Your task to perform on an android device: turn on location history Image 0: 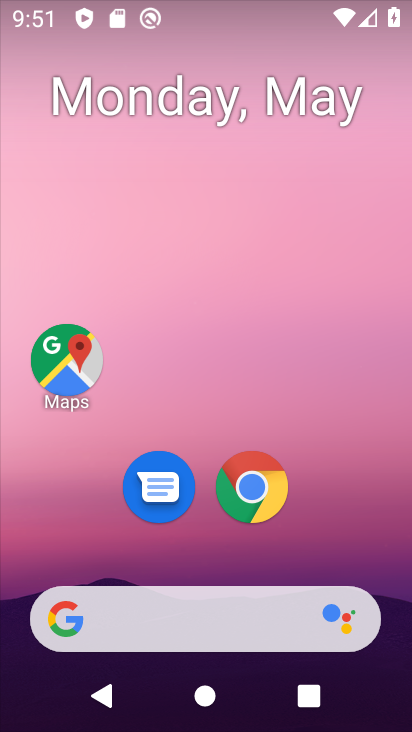
Step 0: drag from (206, 566) to (200, 8)
Your task to perform on an android device: turn on location history Image 1: 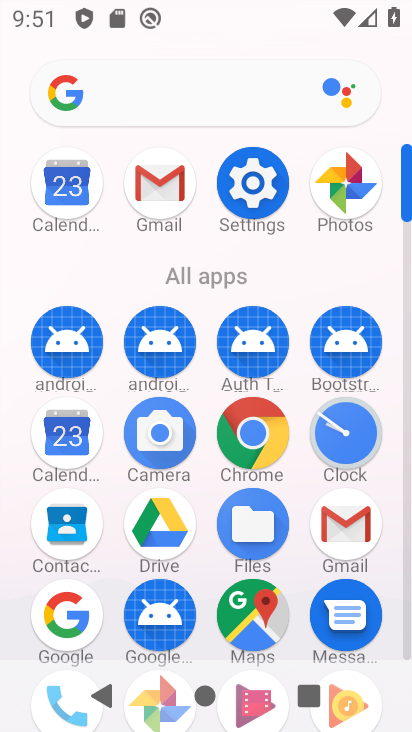
Step 1: click (254, 198)
Your task to perform on an android device: turn on location history Image 2: 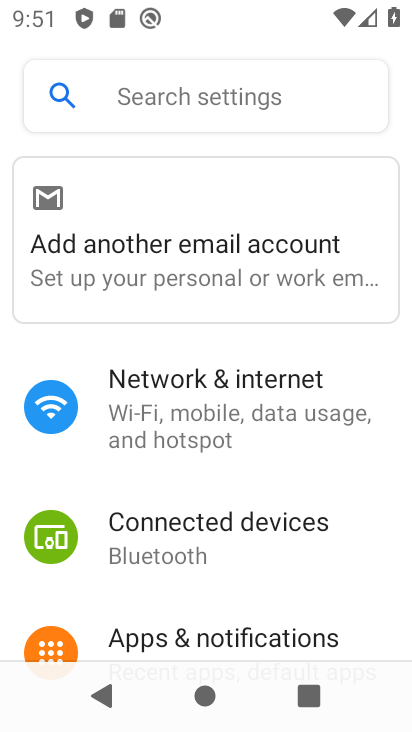
Step 2: drag from (211, 582) to (212, 117)
Your task to perform on an android device: turn on location history Image 3: 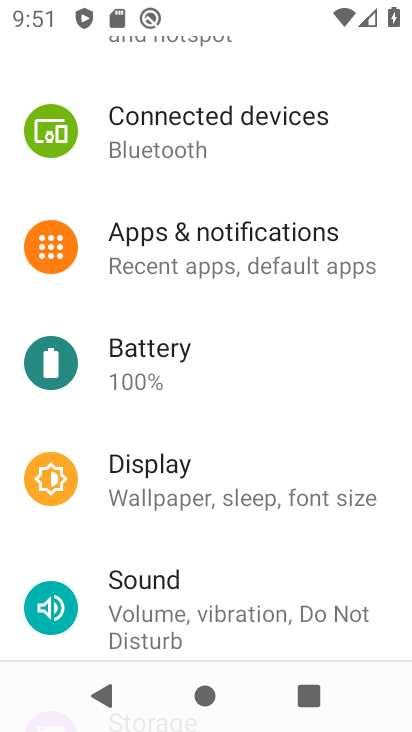
Step 3: drag from (181, 541) to (189, 122)
Your task to perform on an android device: turn on location history Image 4: 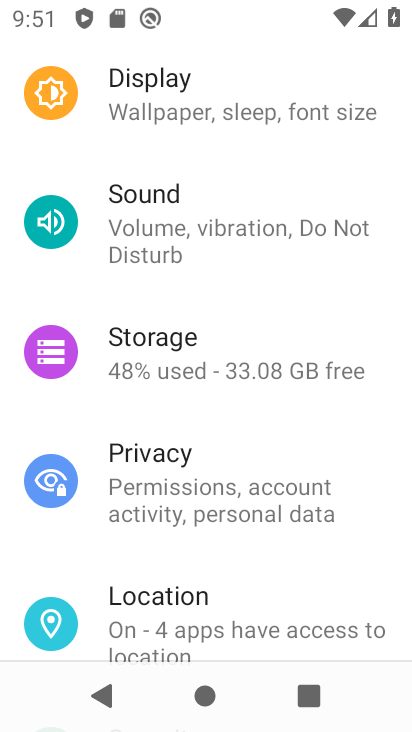
Step 4: click (168, 603)
Your task to perform on an android device: turn on location history Image 5: 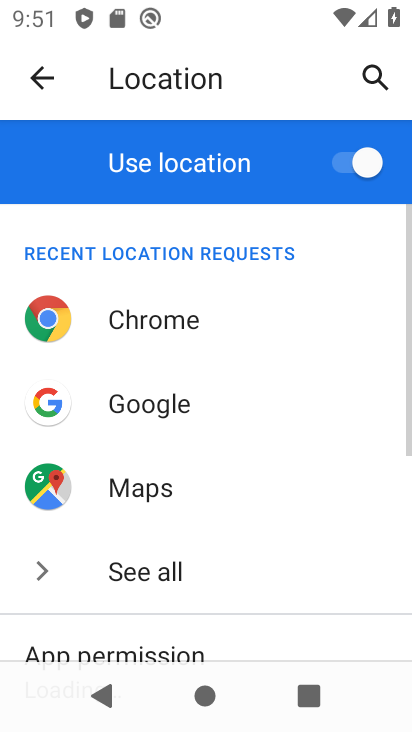
Step 5: drag from (181, 645) to (211, 222)
Your task to perform on an android device: turn on location history Image 6: 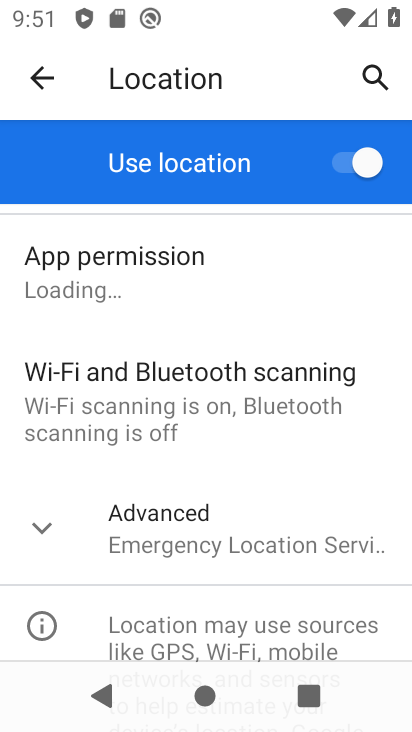
Step 6: click (172, 538)
Your task to perform on an android device: turn on location history Image 7: 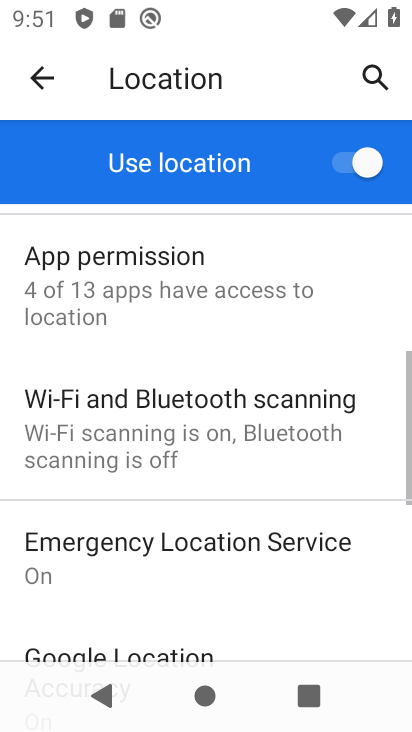
Step 7: drag from (187, 575) to (211, 263)
Your task to perform on an android device: turn on location history Image 8: 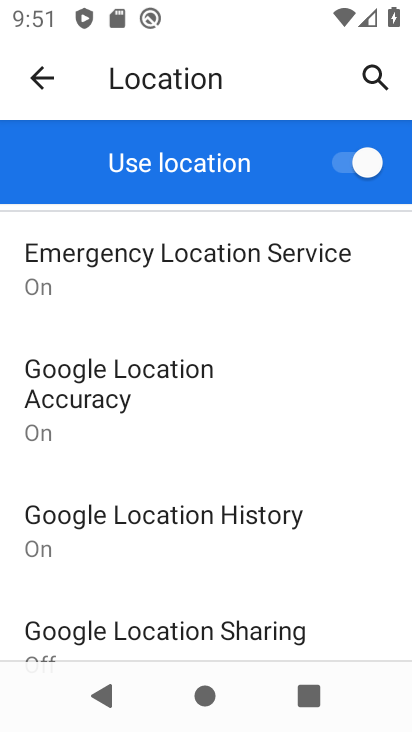
Step 8: click (200, 541)
Your task to perform on an android device: turn on location history Image 9: 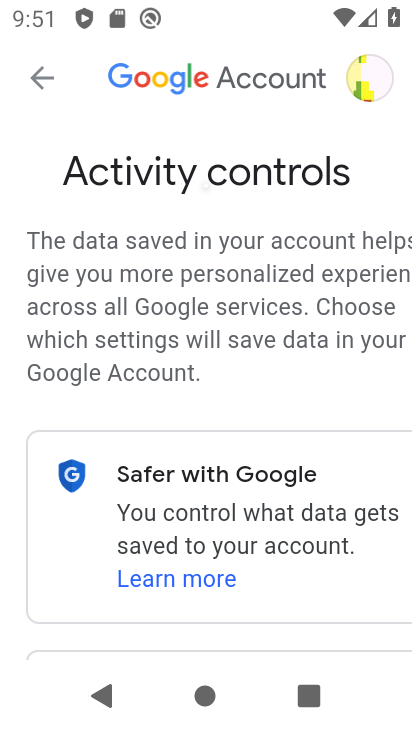
Step 9: drag from (159, 524) to (214, 0)
Your task to perform on an android device: turn on location history Image 10: 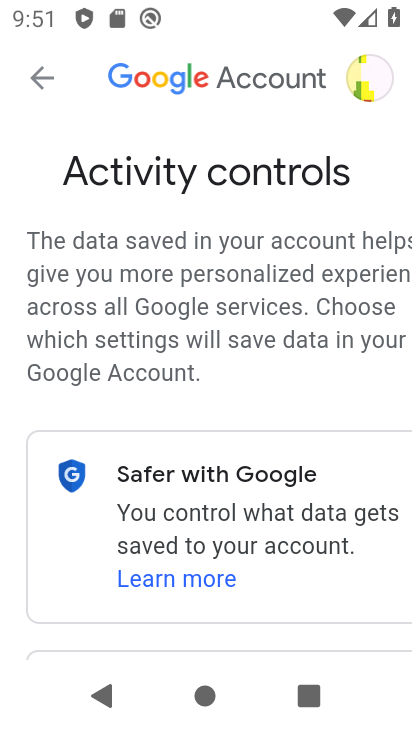
Step 10: drag from (214, 532) to (248, 61)
Your task to perform on an android device: turn on location history Image 11: 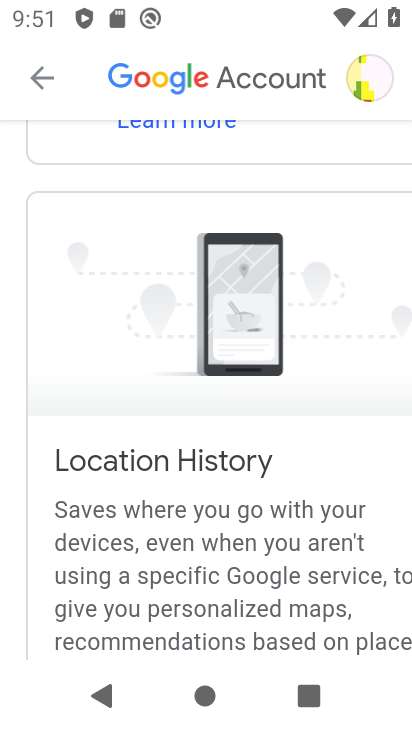
Step 11: drag from (254, 516) to (312, 38)
Your task to perform on an android device: turn on location history Image 12: 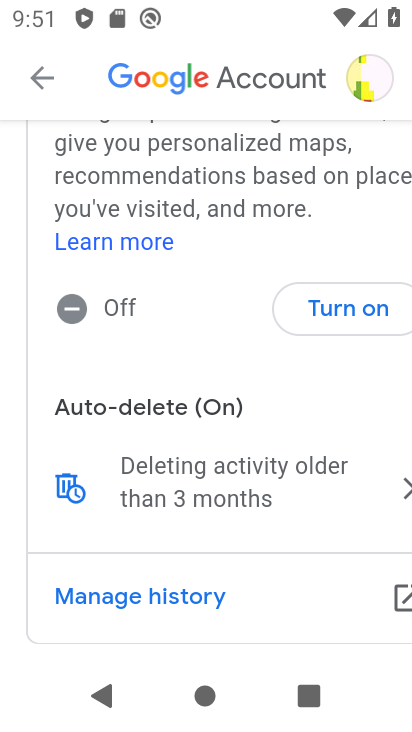
Step 12: click (338, 305)
Your task to perform on an android device: turn on location history Image 13: 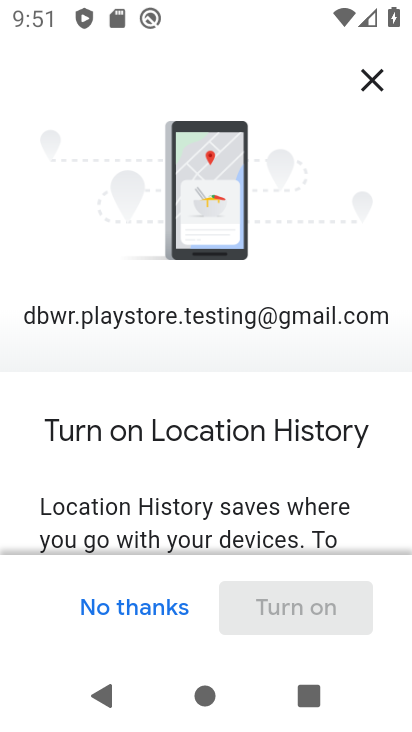
Step 13: drag from (247, 520) to (275, 117)
Your task to perform on an android device: turn on location history Image 14: 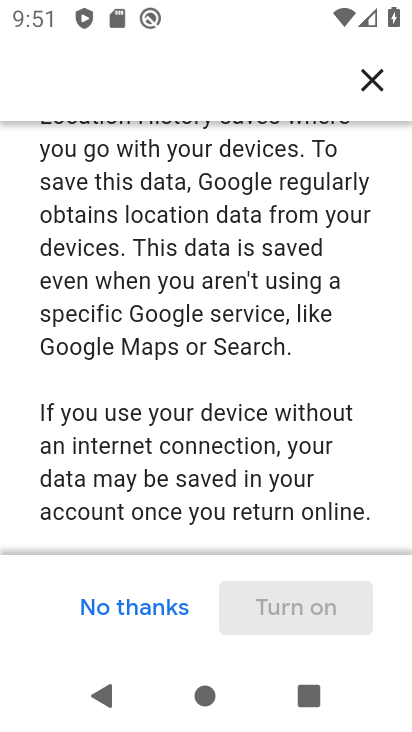
Step 14: drag from (243, 485) to (261, 78)
Your task to perform on an android device: turn on location history Image 15: 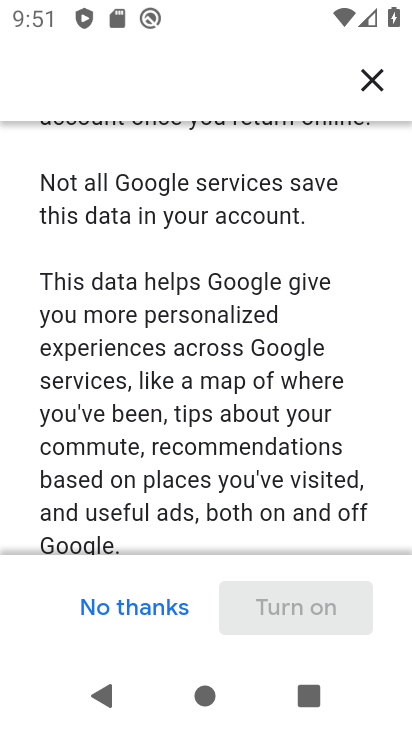
Step 15: drag from (234, 510) to (274, 29)
Your task to perform on an android device: turn on location history Image 16: 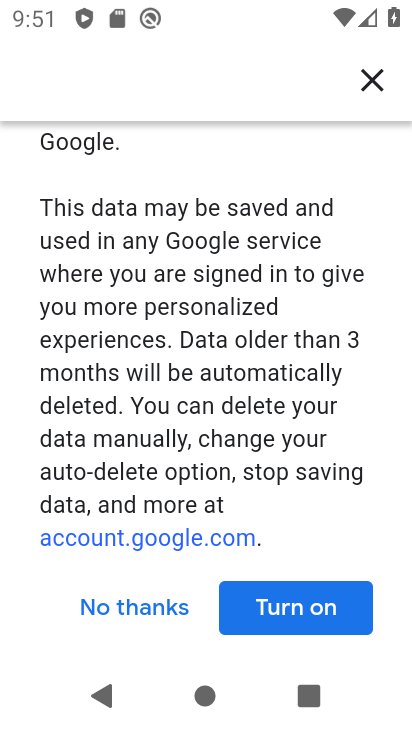
Step 16: click (295, 620)
Your task to perform on an android device: turn on location history Image 17: 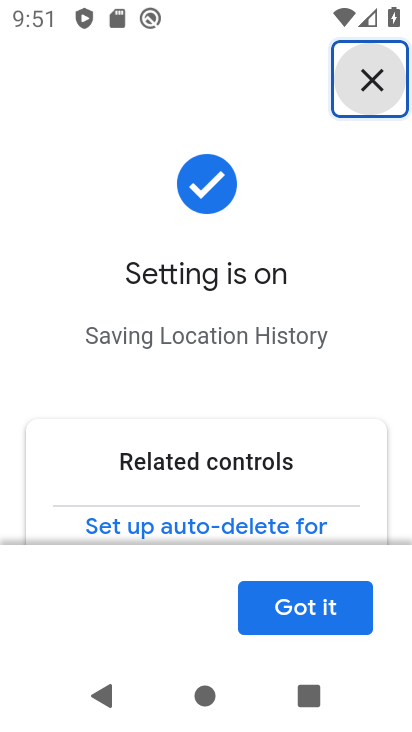
Step 17: click (302, 607)
Your task to perform on an android device: turn on location history Image 18: 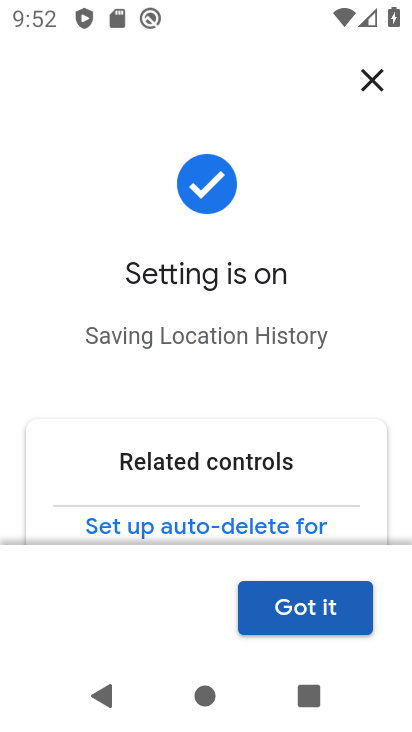
Step 18: click (304, 606)
Your task to perform on an android device: turn on location history Image 19: 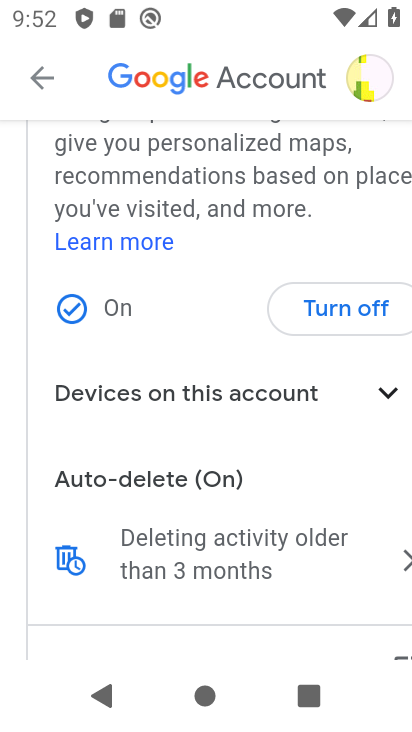
Step 19: task complete